Your task to perform on an android device: Open calendar and show me the first week of next month Image 0: 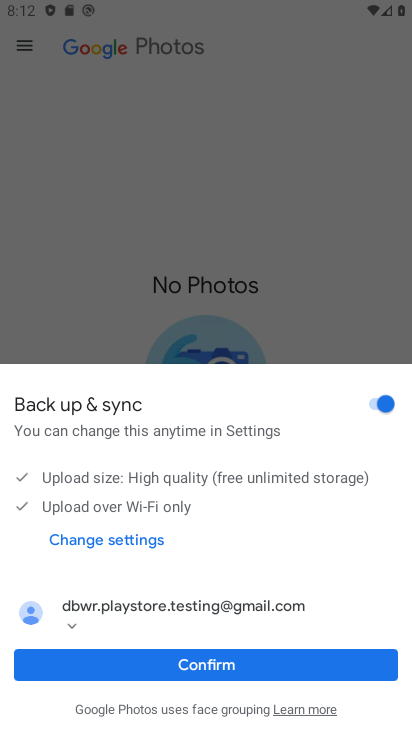
Step 0: press home button
Your task to perform on an android device: Open calendar and show me the first week of next month Image 1: 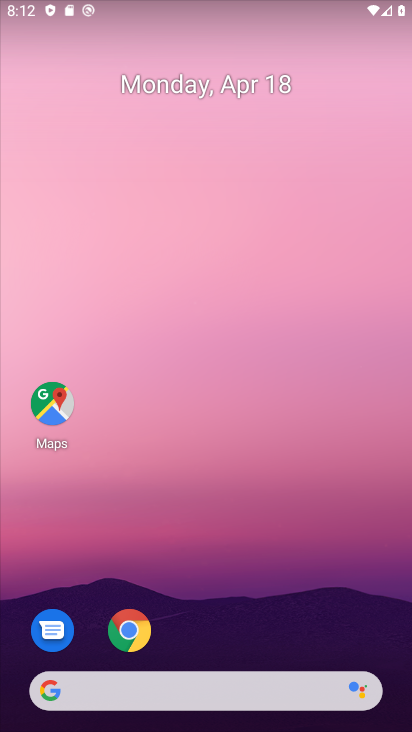
Step 1: drag from (219, 644) to (301, 5)
Your task to perform on an android device: Open calendar and show me the first week of next month Image 2: 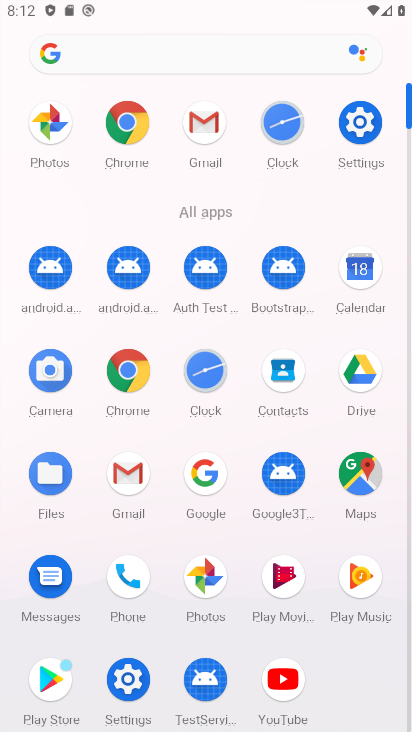
Step 2: click (369, 274)
Your task to perform on an android device: Open calendar and show me the first week of next month Image 3: 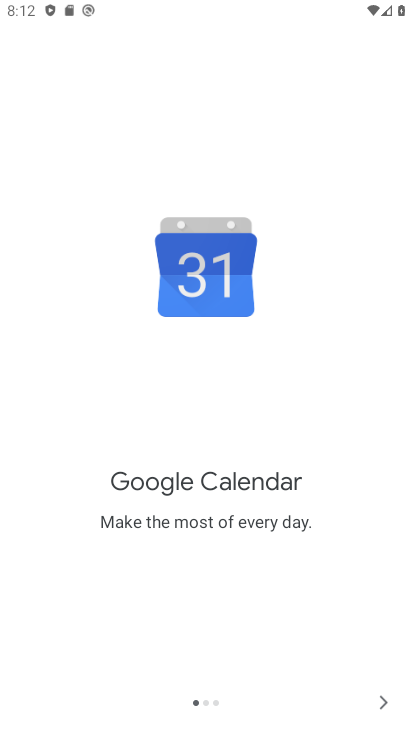
Step 3: click (377, 694)
Your task to perform on an android device: Open calendar and show me the first week of next month Image 4: 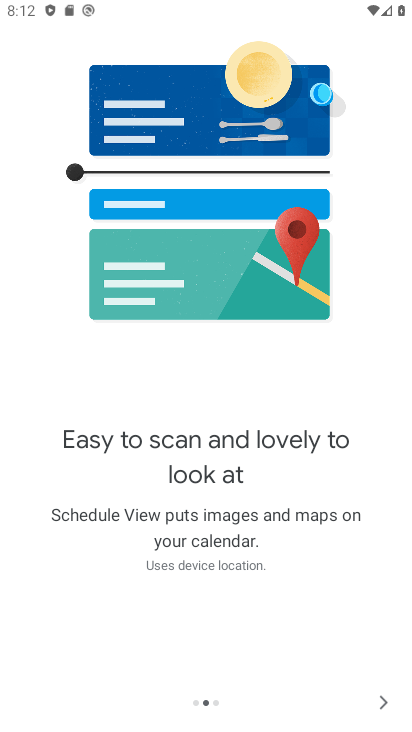
Step 4: click (377, 694)
Your task to perform on an android device: Open calendar and show me the first week of next month Image 5: 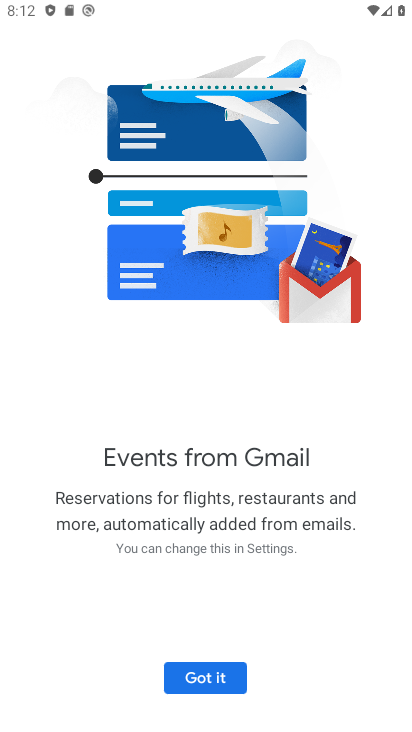
Step 5: click (199, 675)
Your task to perform on an android device: Open calendar and show me the first week of next month Image 6: 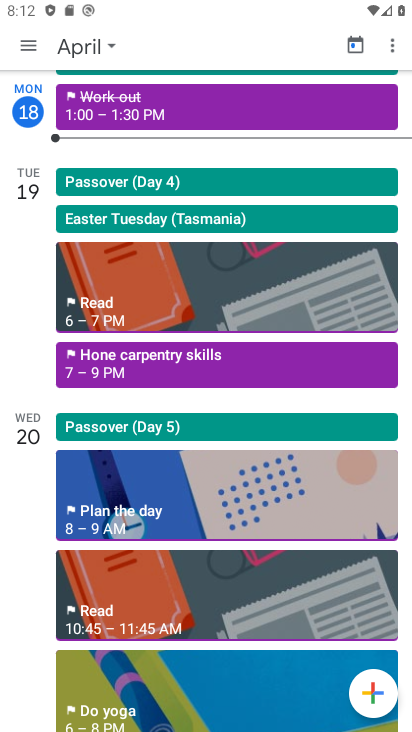
Step 6: click (28, 45)
Your task to perform on an android device: Open calendar and show me the first week of next month Image 7: 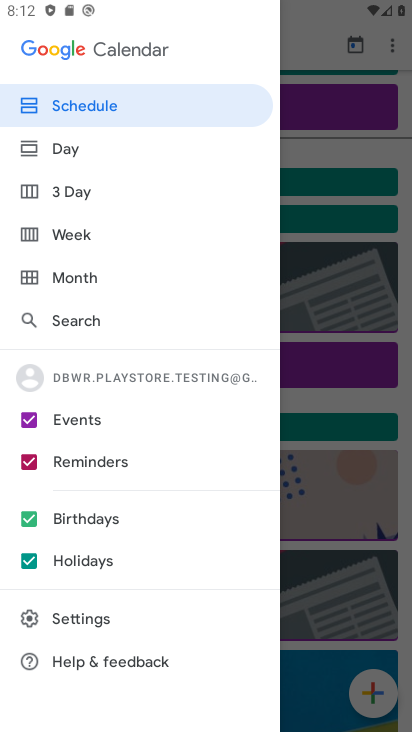
Step 7: click (98, 238)
Your task to perform on an android device: Open calendar and show me the first week of next month Image 8: 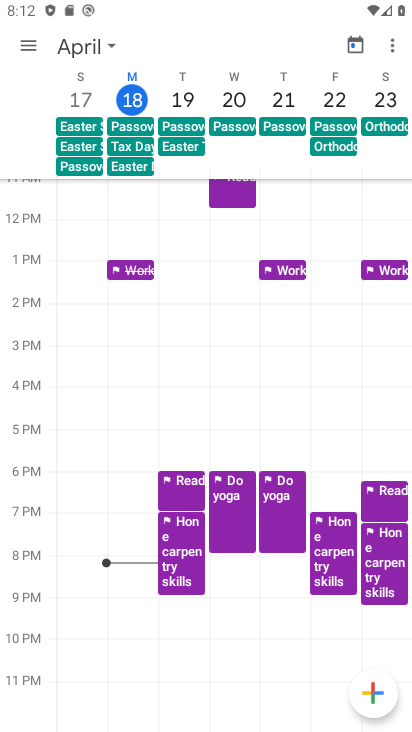
Step 8: task complete